Your task to perform on an android device: Open Google Maps and go to "Timeline" Image 0: 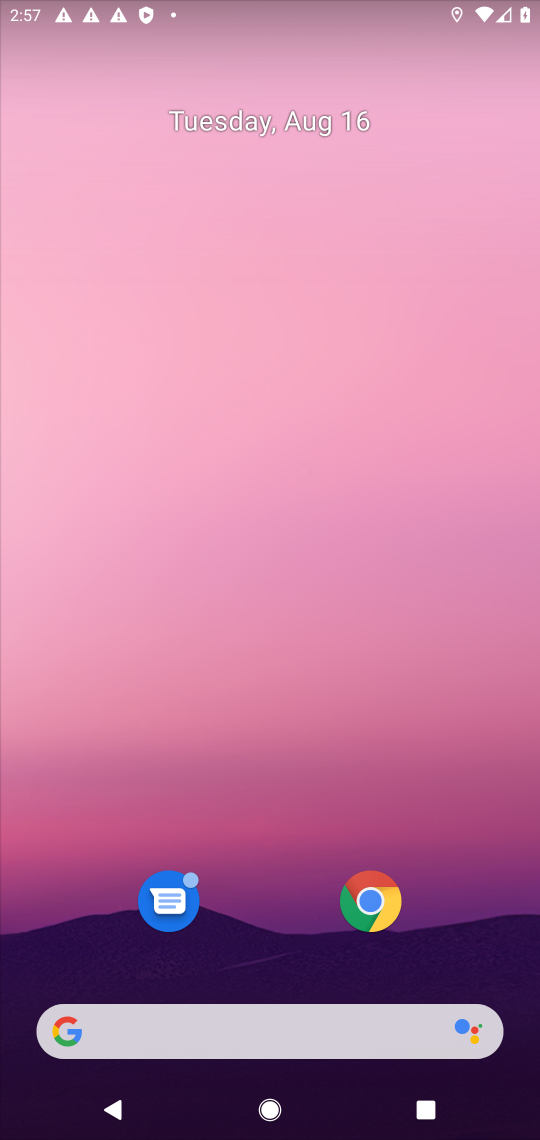
Step 0: press home button
Your task to perform on an android device: Open Google Maps and go to "Timeline" Image 1: 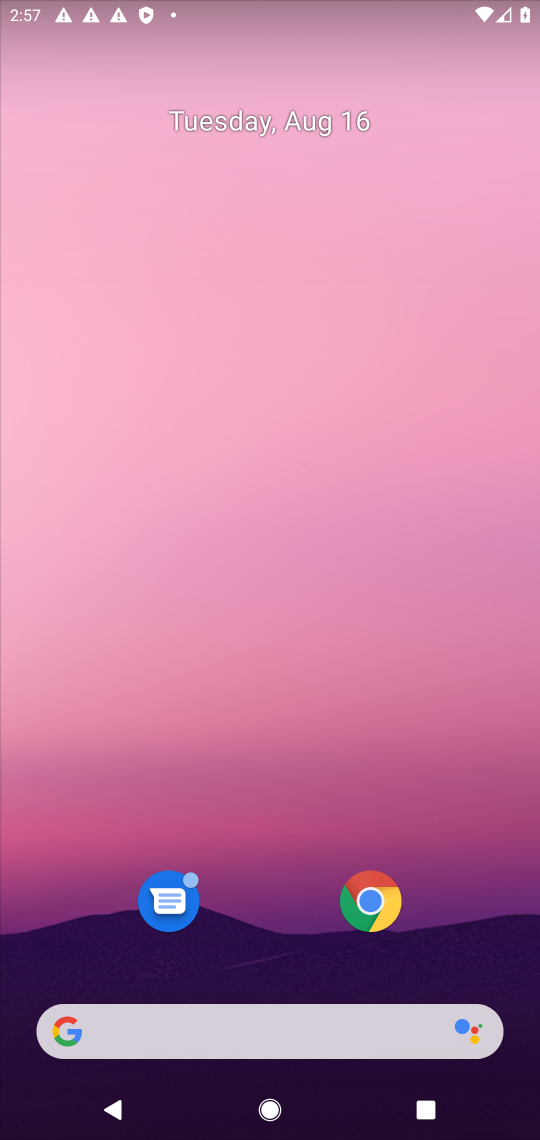
Step 1: drag from (216, 193) to (330, 0)
Your task to perform on an android device: Open Google Maps and go to "Timeline" Image 2: 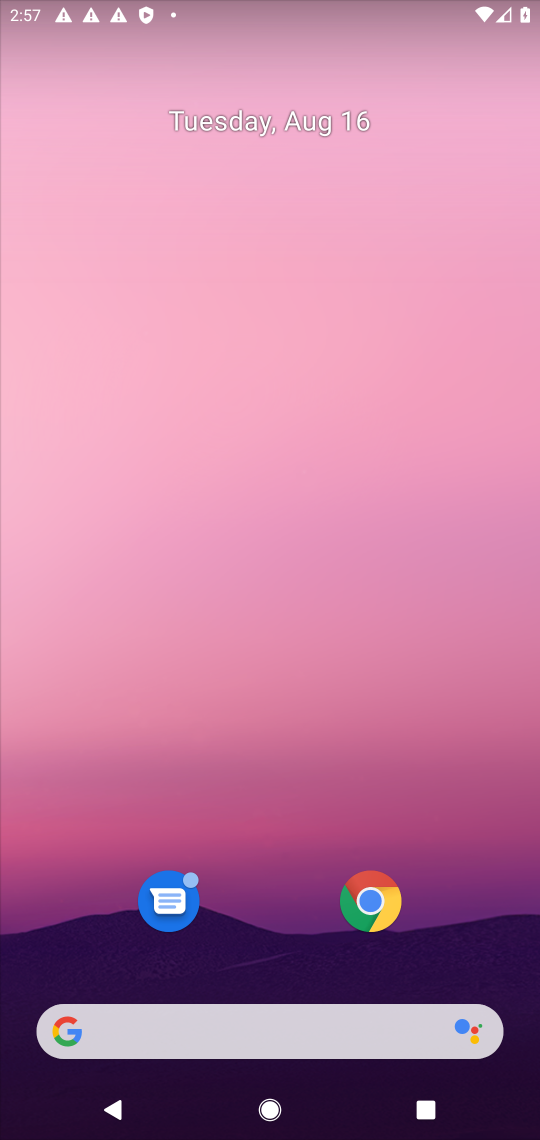
Step 2: drag from (294, 865) to (218, 0)
Your task to perform on an android device: Open Google Maps and go to "Timeline" Image 3: 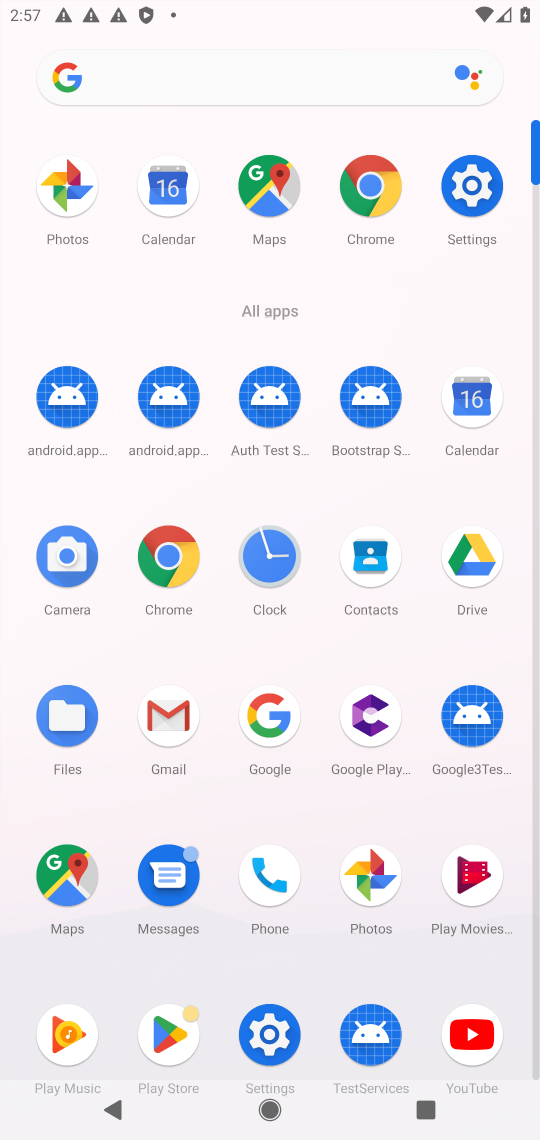
Step 3: click (57, 877)
Your task to perform on an android device: Open Google Maps and go to "Timeline" Image 4: 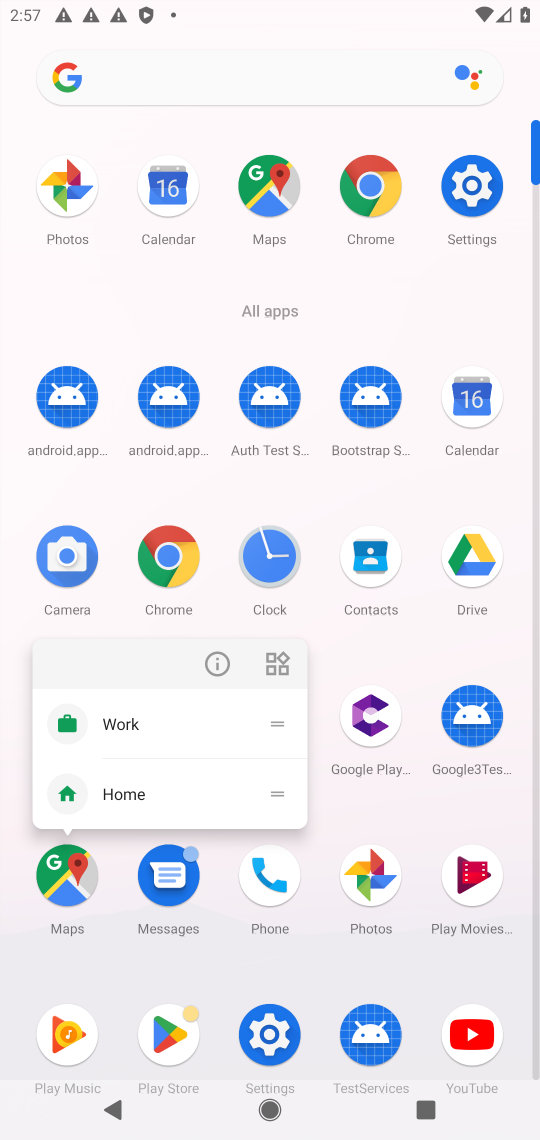
Step 4: click (79, 888)
Your task to perform on an android device: Open Google Maps and go to "Timeline" Image 5: 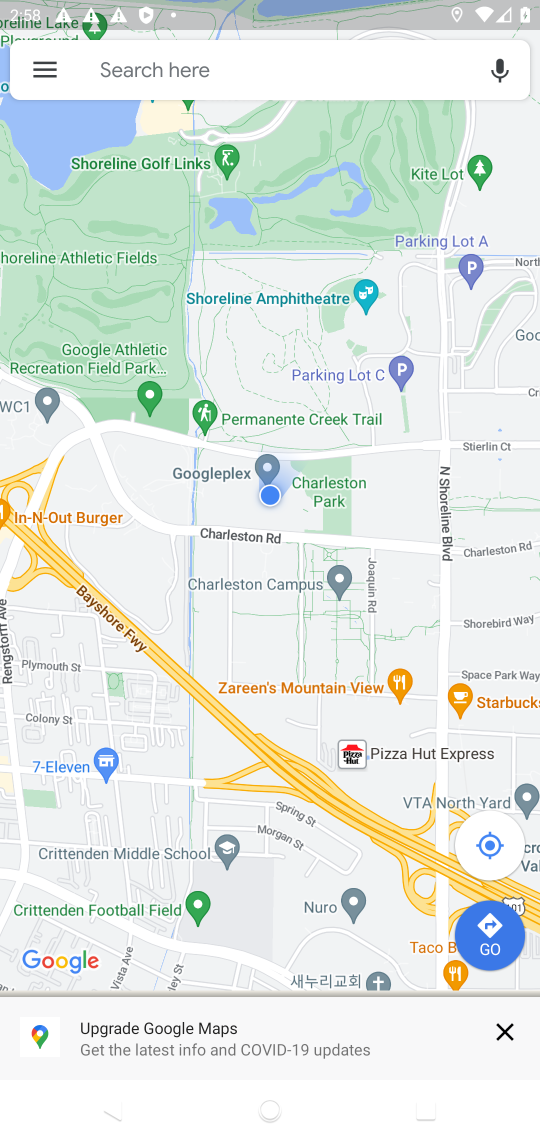
Step 5: click (39, 62)
Your task to perform on an android device: Open Google Maps and go to "Timeline" Image 6: 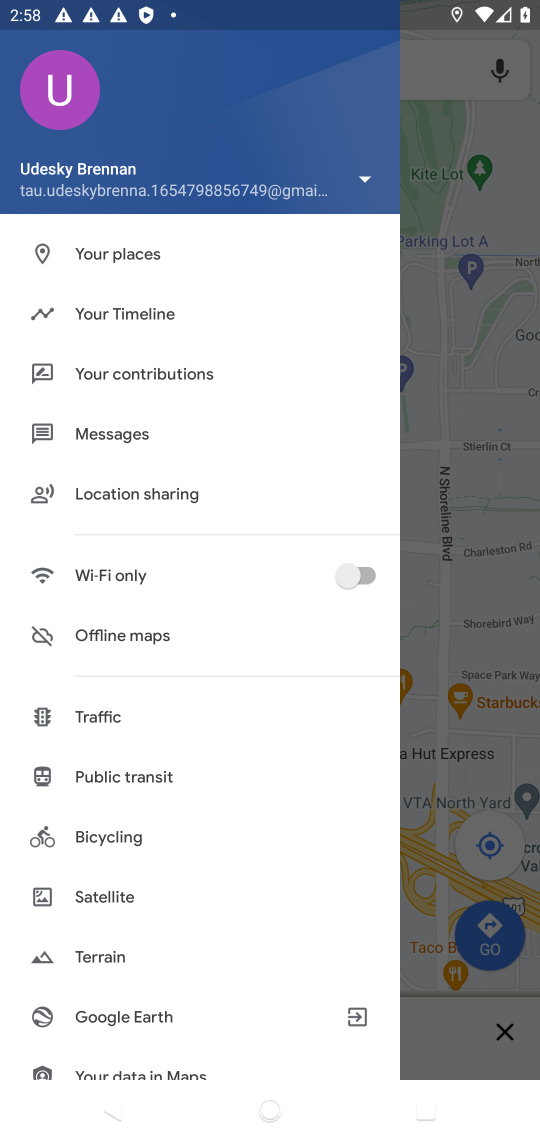
Step 6: click (137, 318)
Your task to perform on an android device: Open Google Maps and go to "Timeline" Image 7: 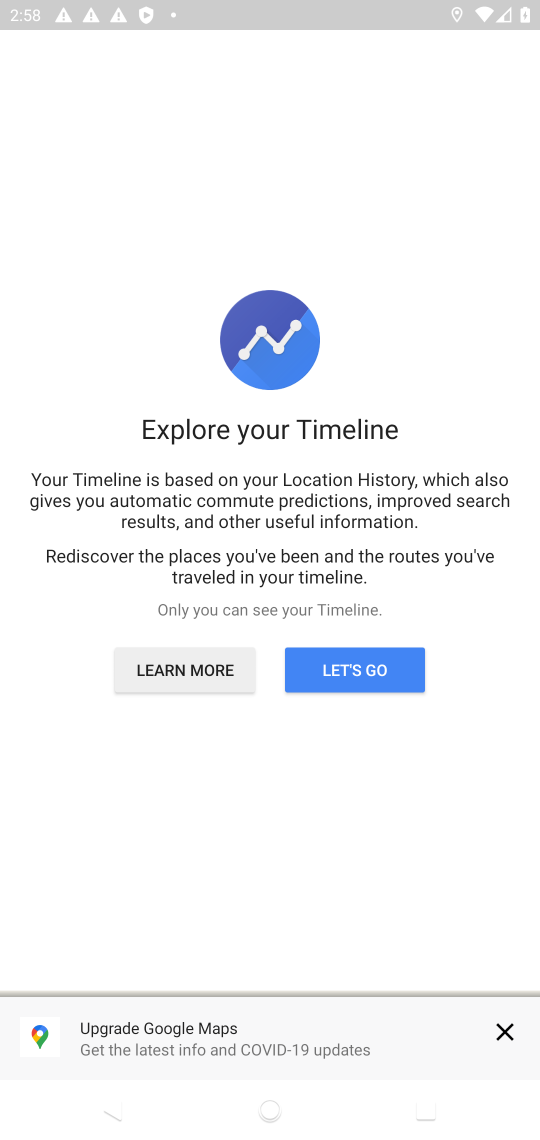
Step 7: click (387, 652)
Your task to perform on an android device: Open Google Maps and go to "Timeline" Image 8: 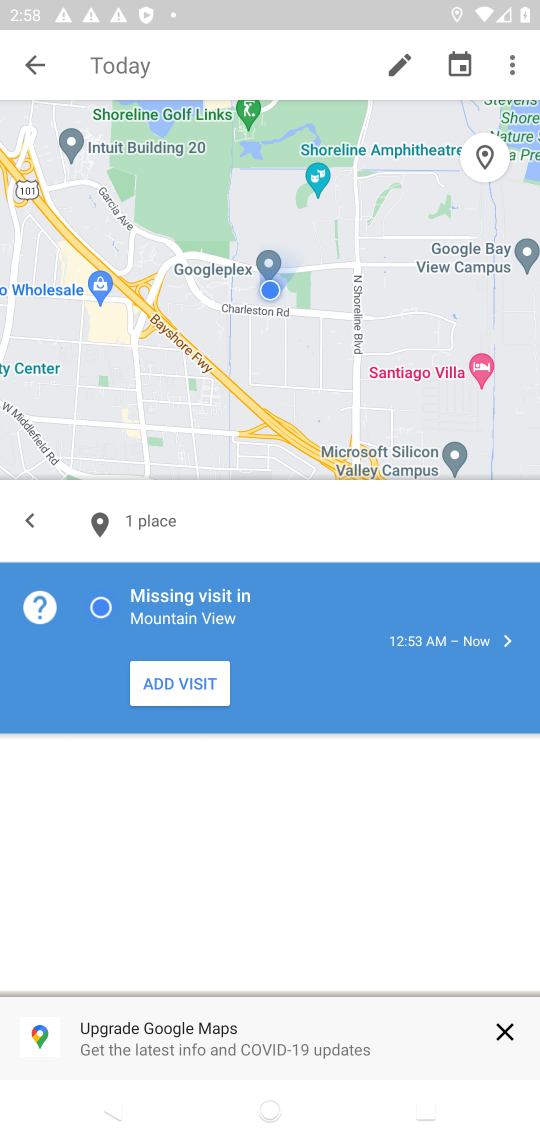
Step 8: task complete